Your task to perform on an android device: check out phone information Image 0: 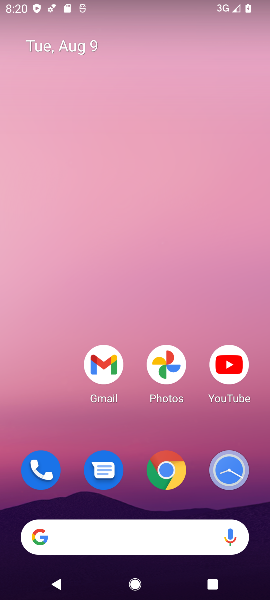
Step 0: drag from (112, 532) to (148, 156)
Your task to perform on an android device: check out phone information Image 1: 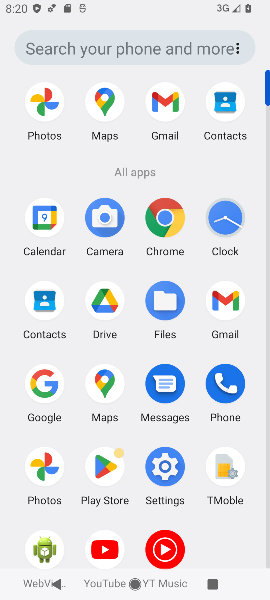
Step 1: click (165, 465)
Your task to perform on an android device: check out phone information Image 2: 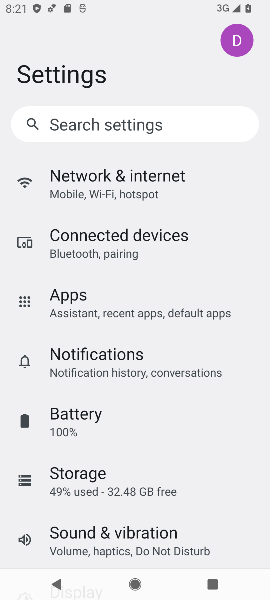
Step 2: drag from (134, 418) to (180, 324)
Your task to perform on an android device: check out phone information Image 3: 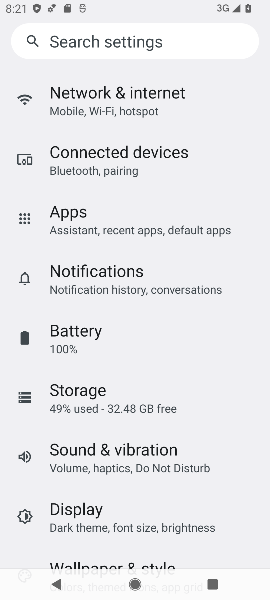
Step 3: drag from (122, 435) to (175, 360)
Your task to perform on an android device: check out phone information Image 4: 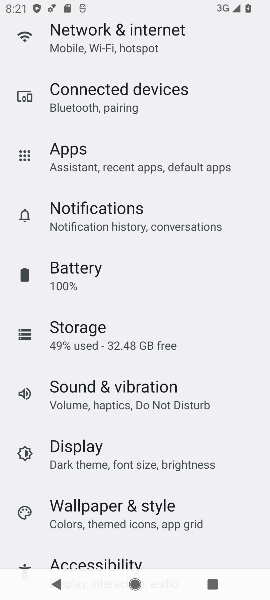
Step 4: drag from (128, 436) to (182, 361)
Your task to perform on an android device: check out phone information Image 5: 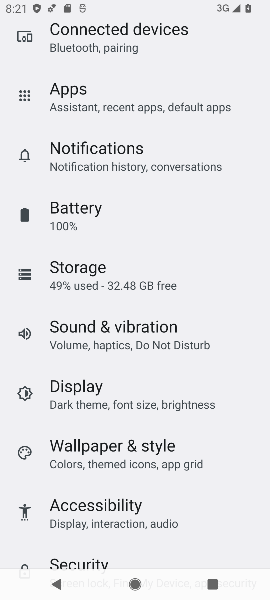
Step 5: drag from (125, 425) to (189, 331)
Your task to perform on an android device: check out phone information Image 6: 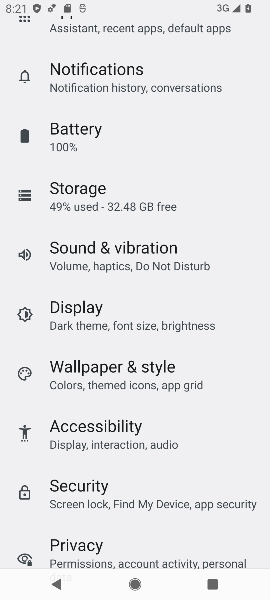
Step 6: drag from (122, 417) to (185, 333)
Your task to perform on an android device: check out phone information Image 7: 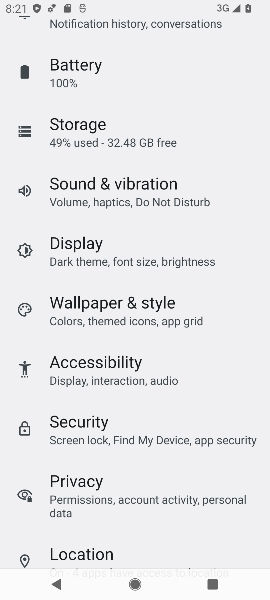
Step 7: drag from (93, 460) to (181, 363)
Your task to perform on an android device: check out phone information Image 8: 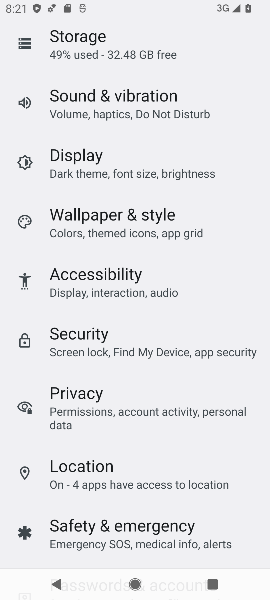
Step 8: drag from (74, 439) to (120, 355)
Your task to perform on an android device: check out phone information Image 9: 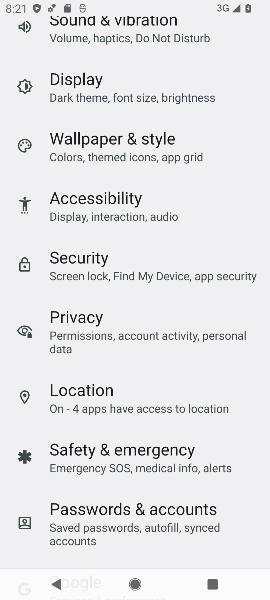
Step 9: drag from (92, 420) to (149, 338)
Your task to perform on an android device: check out phone information Image 10: 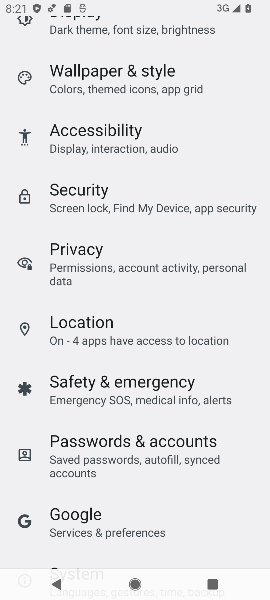
Step 10: drag from (86, 419) to (146, 325)
Your task to perform on an android device: check out phone information Image 11: 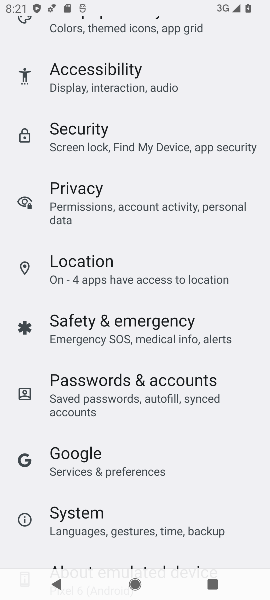
Step 11: drag from (112, 423) to (151, 364)
Your task to perform on an android device: check out phone information Image 12: 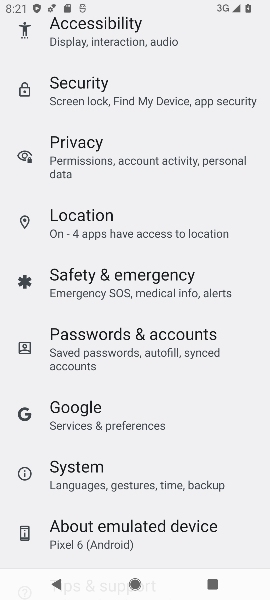
Step 12: drag from (127, 404) to (182, 309)
Your task to perform on an android device: check out phone information Image 13: 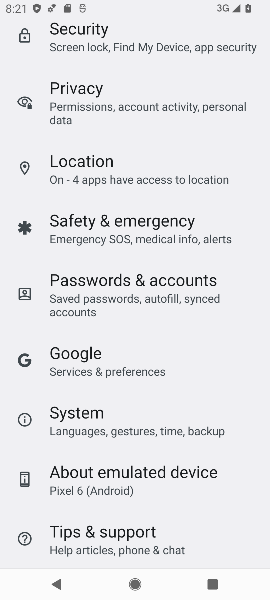
Step 13: click (133, 480)
Your task to perform on an android device: check out phone information Image 14: 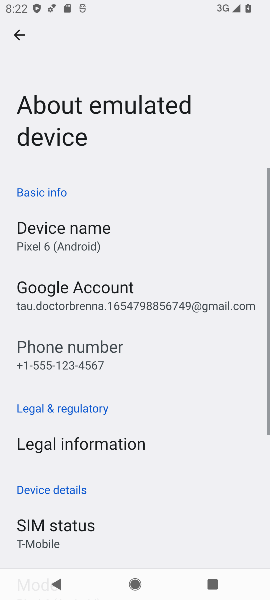
Step 14: task complete